Your task to perform on an android device: open device folders in google photos Image 0: 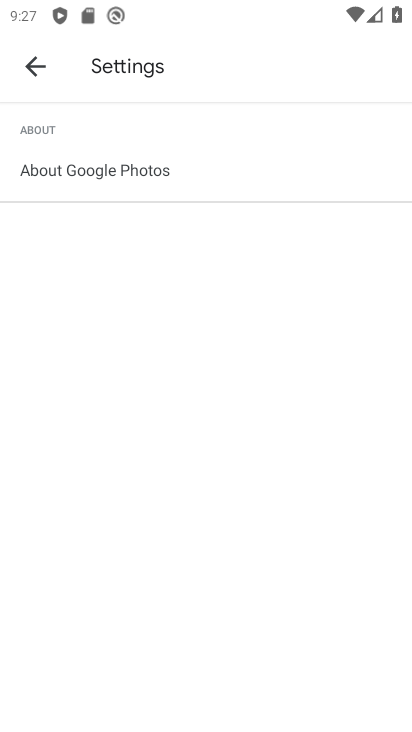
Step 0: press home button
Your task to perform on an android device: open device folders in google photos Image 1: 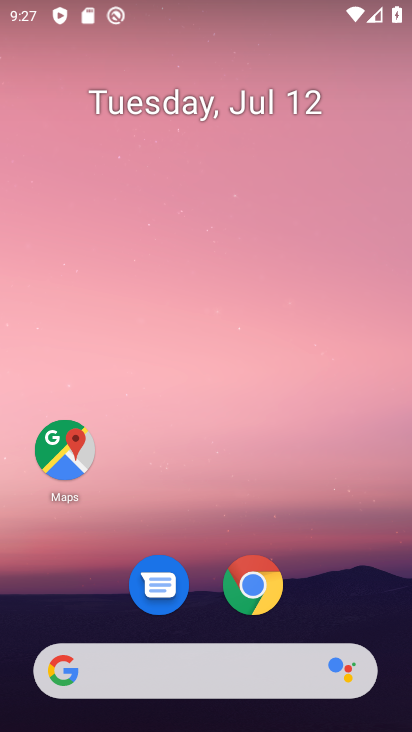
Step 1: drag from (177, 668) to (302, 12)
Your task to perform on an android device: open device folders in google photos Image 2: 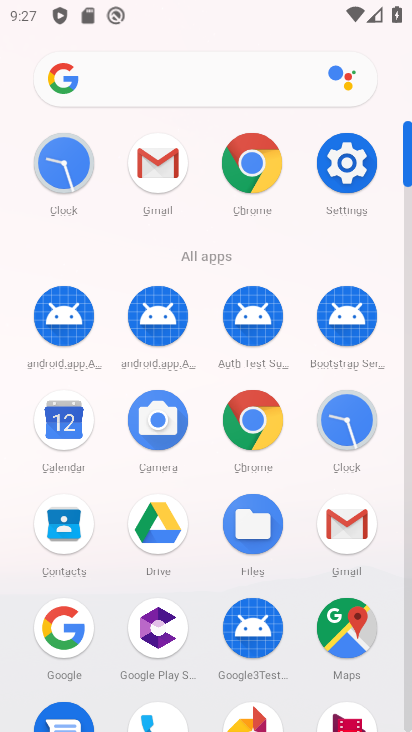
Step 2: drag from (222, 672) to (283, 144)
Your task to perform on an android device: open device folders in google photos Image 3: 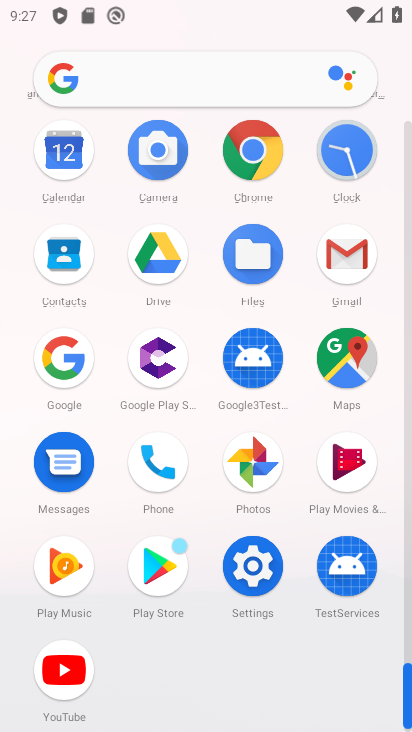
Step 3: click (253, 467)
Your task to perform on an android device: open device folders in google photos Image 4: 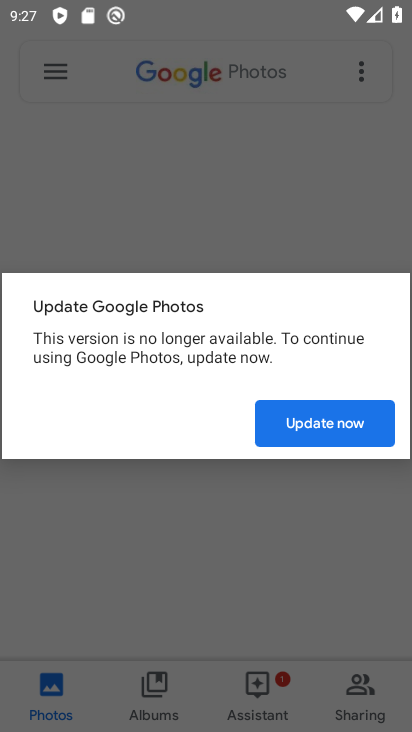
Step 4: click (328, 417)
Your task to perform on an android device: open device folders in google photos Image 5: 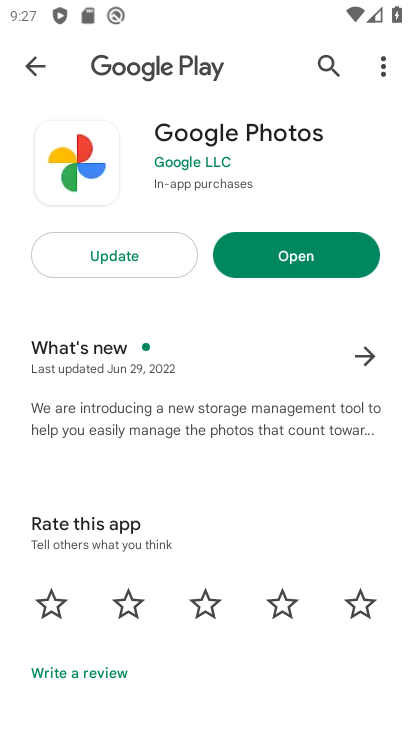
Step 5: click (285, 253)
Your task to perform on an android device: open device folders in google photos Image 6: 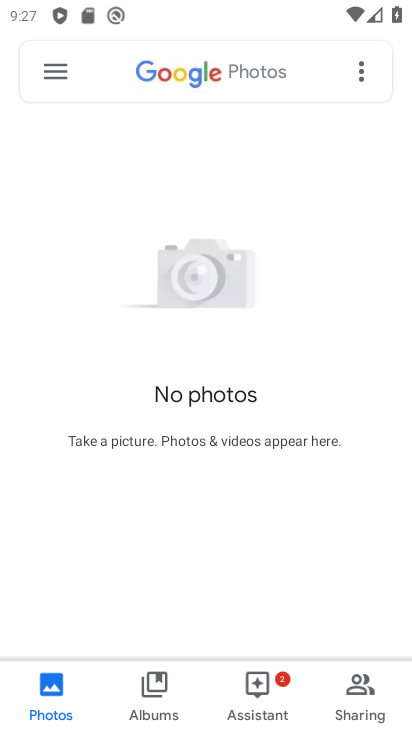
Step 6: click (47, 71)
Your task to perform on an android device: open device folders in google photos Image 7: 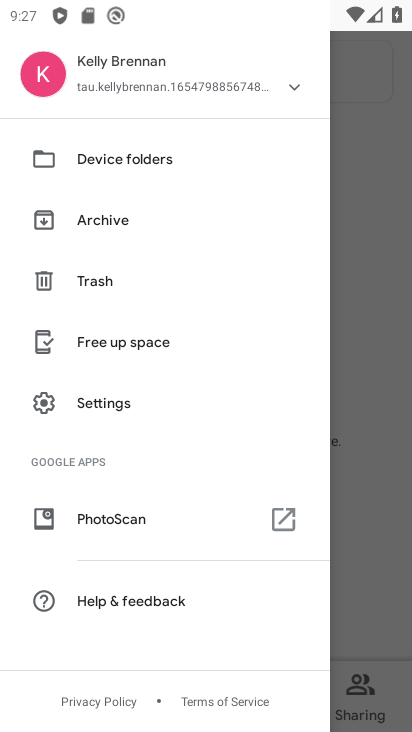
Step 7: click (94, 155)
Your task to perform on an android device: open device folders in google photos Image 8: 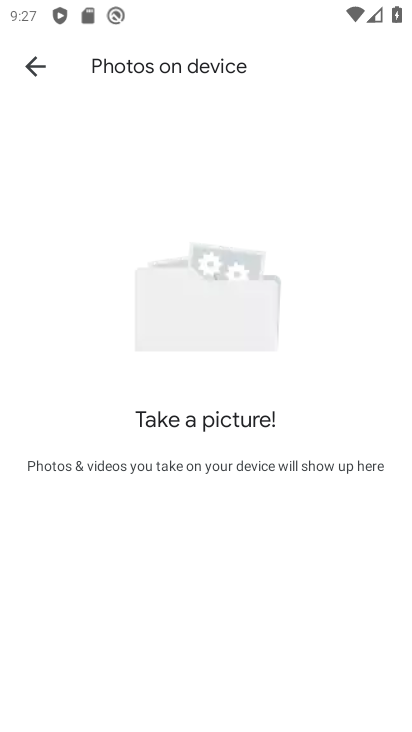
Step 8: task complete